Your task to perform on an android device: Do I have any events today? Image 0: 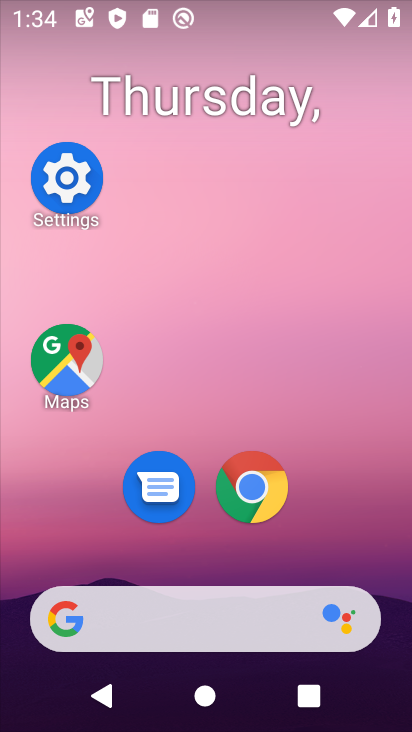
Step 0: drag from (319, 552) to (283, 138)
Your task to perform on an android device: Do I have any events today? Image 1: 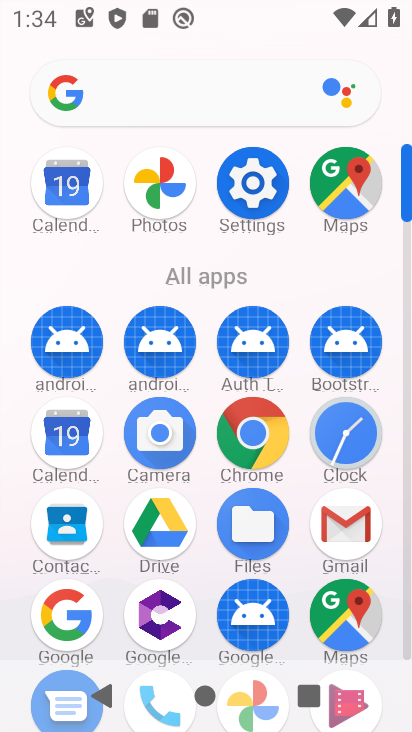
Step 1: click (84, 438)
Your task to perform on an android device: Do I have any events today? Image 2: 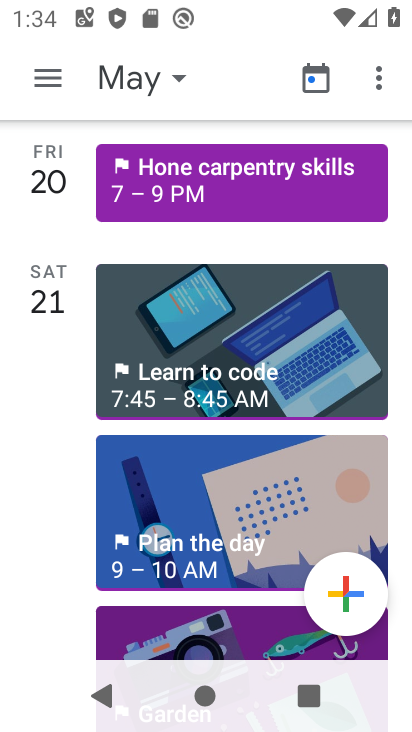
Step 2: drag from (53, 155) to (111, 502)
Your task to perform on an android device: Do I have any events today? Image 3: 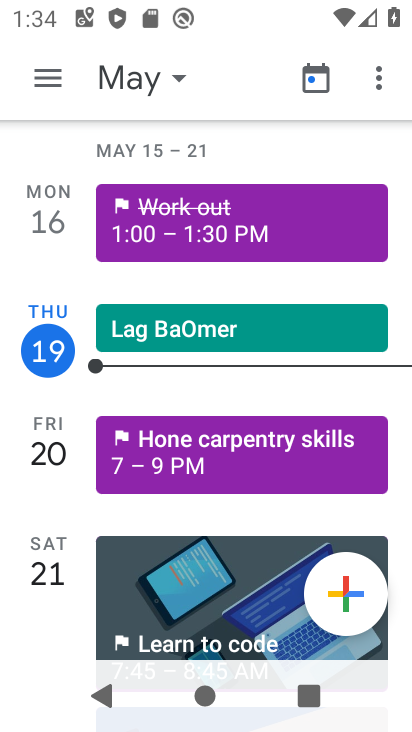
Step 3: click (67, 342)
Your task to perform on an android device: Do I have any events today? Image 4: 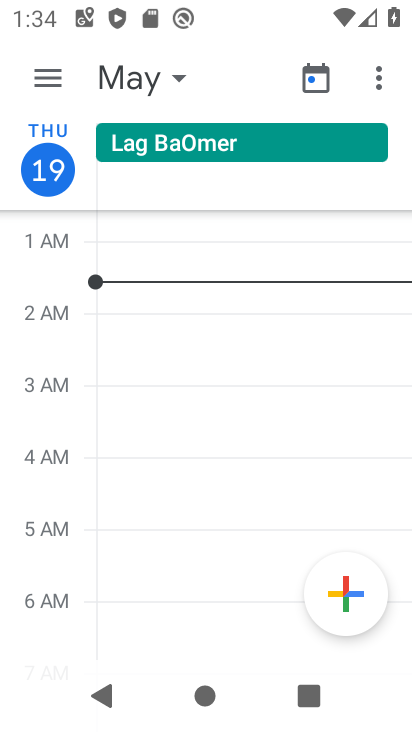
Step 4: task complete